Your task to perform on an android device: What's on my calendar today? Image 0: 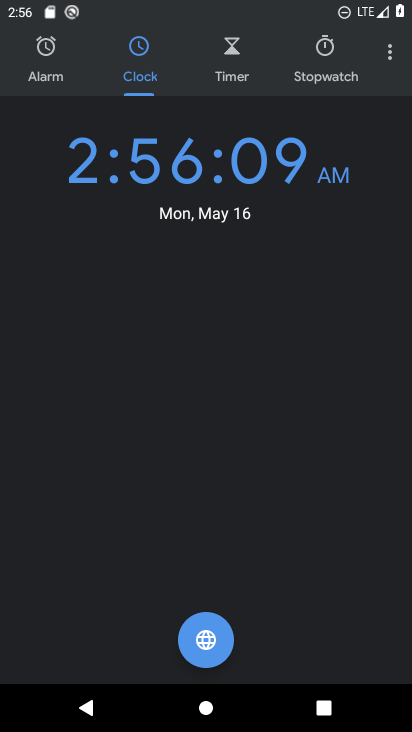
Step 0: press home button
Your task to perform on an android device: What's on my calendar today? Image 1: 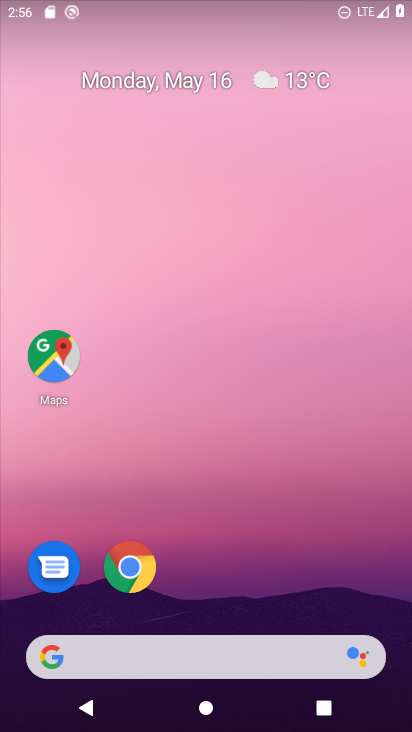
Step 1: drag from (301, 570) to (228, 43)
Your task to perform on an android device: What's on my calendar today? Image 2: 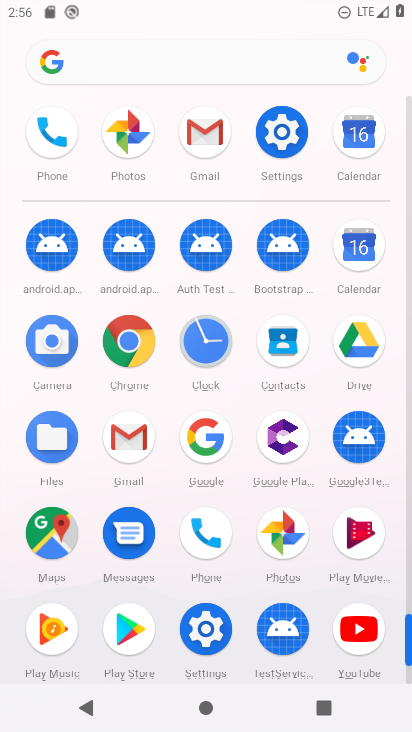
Step 2: click (346, 230)
Your task to perform on an android device: What's on my calendar today? Image 3: 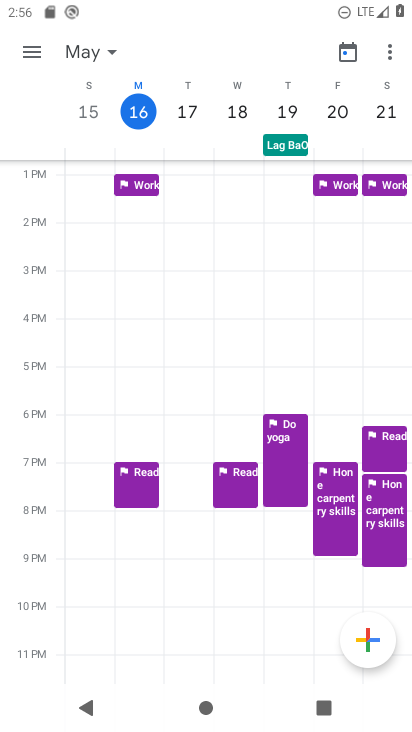
Step 3: click (42, 53)
Your task to perform on an android device: What's on my calendar today? Image 4: 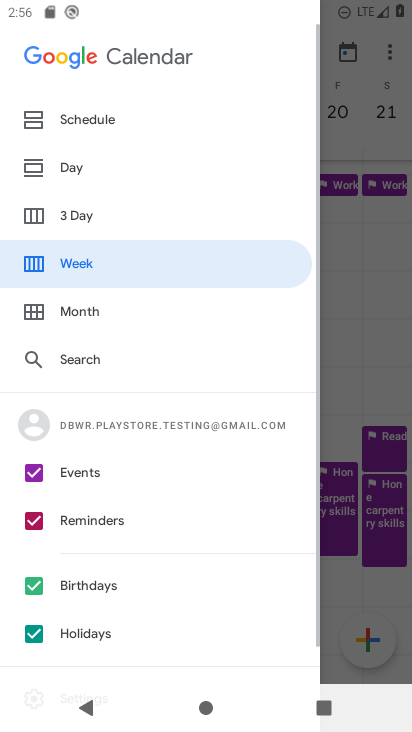
Step 4: click (88, 164)
Your task to perform on an android device: What's on my calendar today? Image 5: 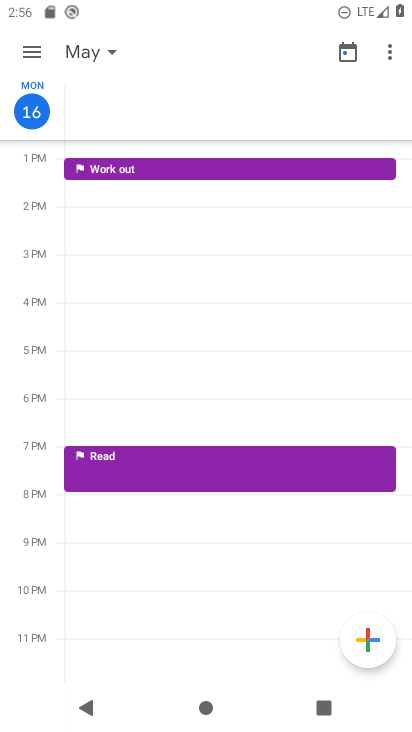
Step 5: task complete